Your task to perform on an android device: turn off wifi Image 0: 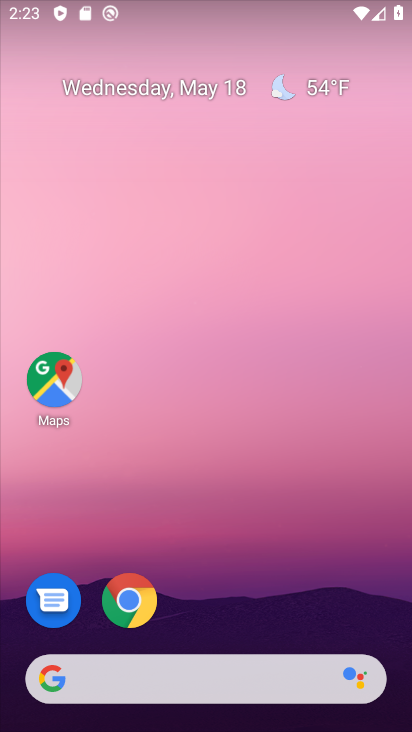
Step 0: press home button
Your task to perform on an android device: turn off wifi Image 1: 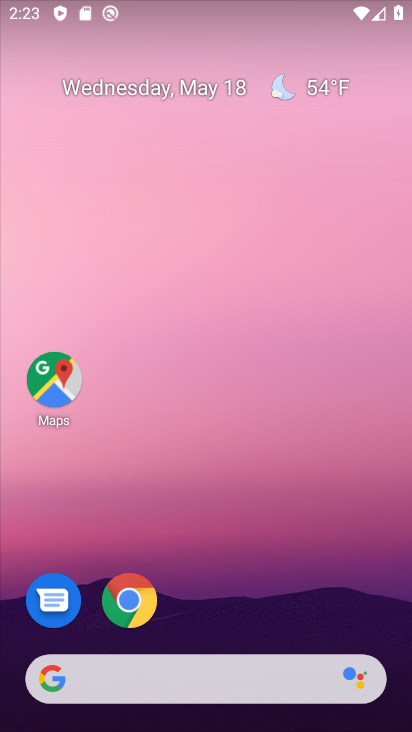
Step 1: drag from (193, 684) to (333, 227)
Your task to perform on an android device: turn off wifi Image 2: 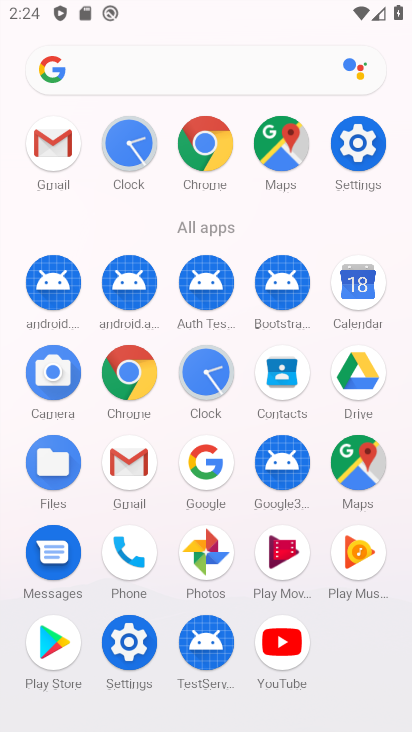
Step 2: click (399, 138)
Your task to perform on an android device: turn off wifi Image 3: 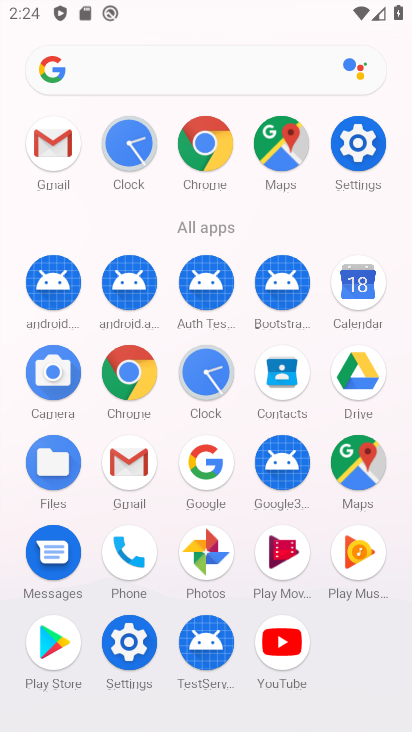
Step 3: click (377, 145)
Your task to perform on an android device: turn off wifi Image 4: 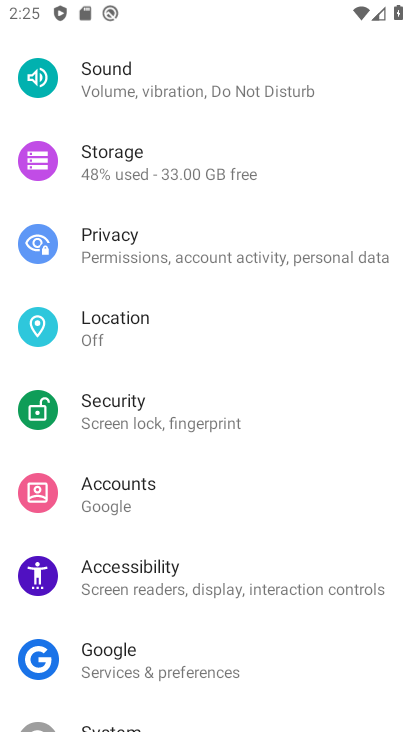
Step 4: drag from (298, 148) to (200, 594)
Your task to perform on an android device: turn off wifi Image 5: 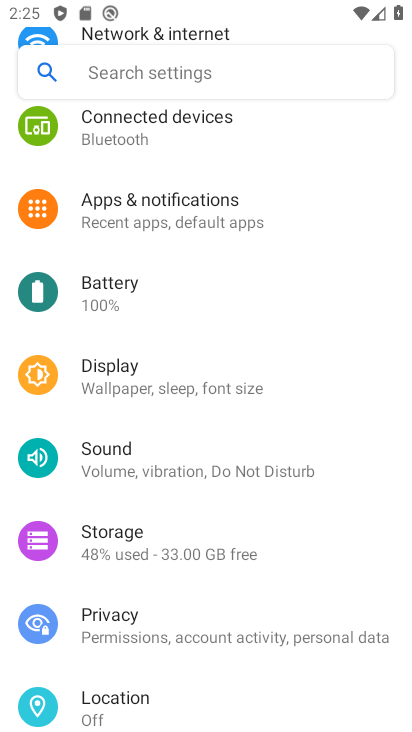
Step 5: drag from (269, 165) to (193, 514)
Your task to perform on an android device: turn off wifi Image 6: 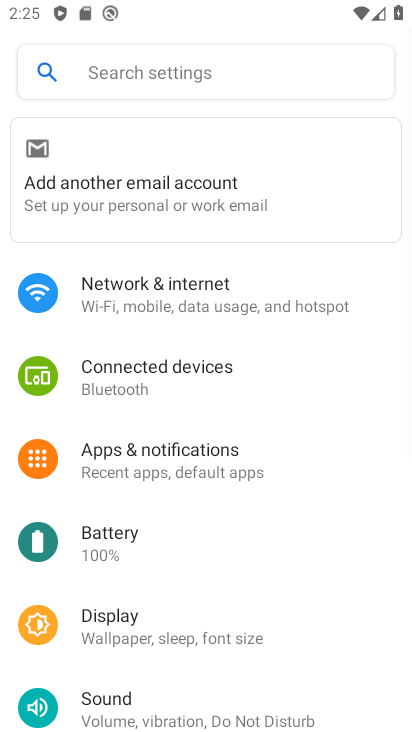
Step 6: click (223, 290)
Your task to perform on an android device: turn off wifi Image 7: 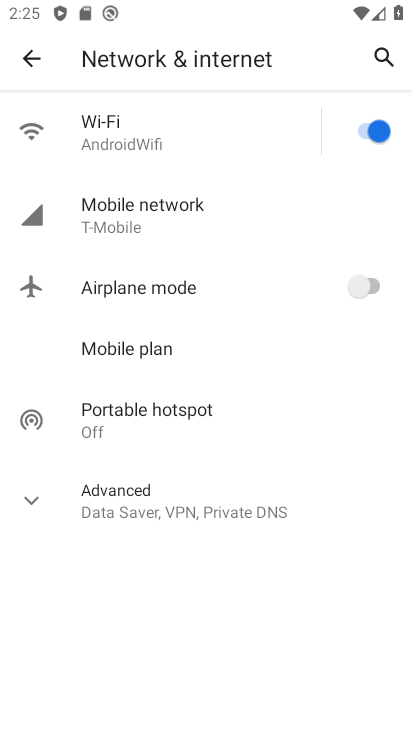
Step 7: click (363, 130)
Your task to perform on an android device: turn off wifi Image 8: 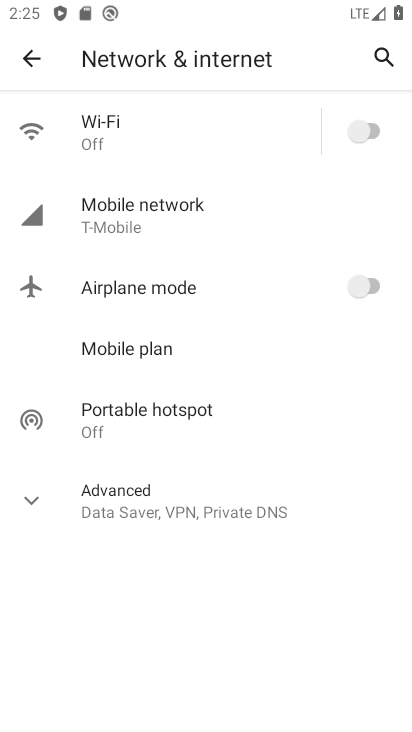
Step 8: task complete